Your task to perform on an android device: uninstall "Facebook" Image 0: 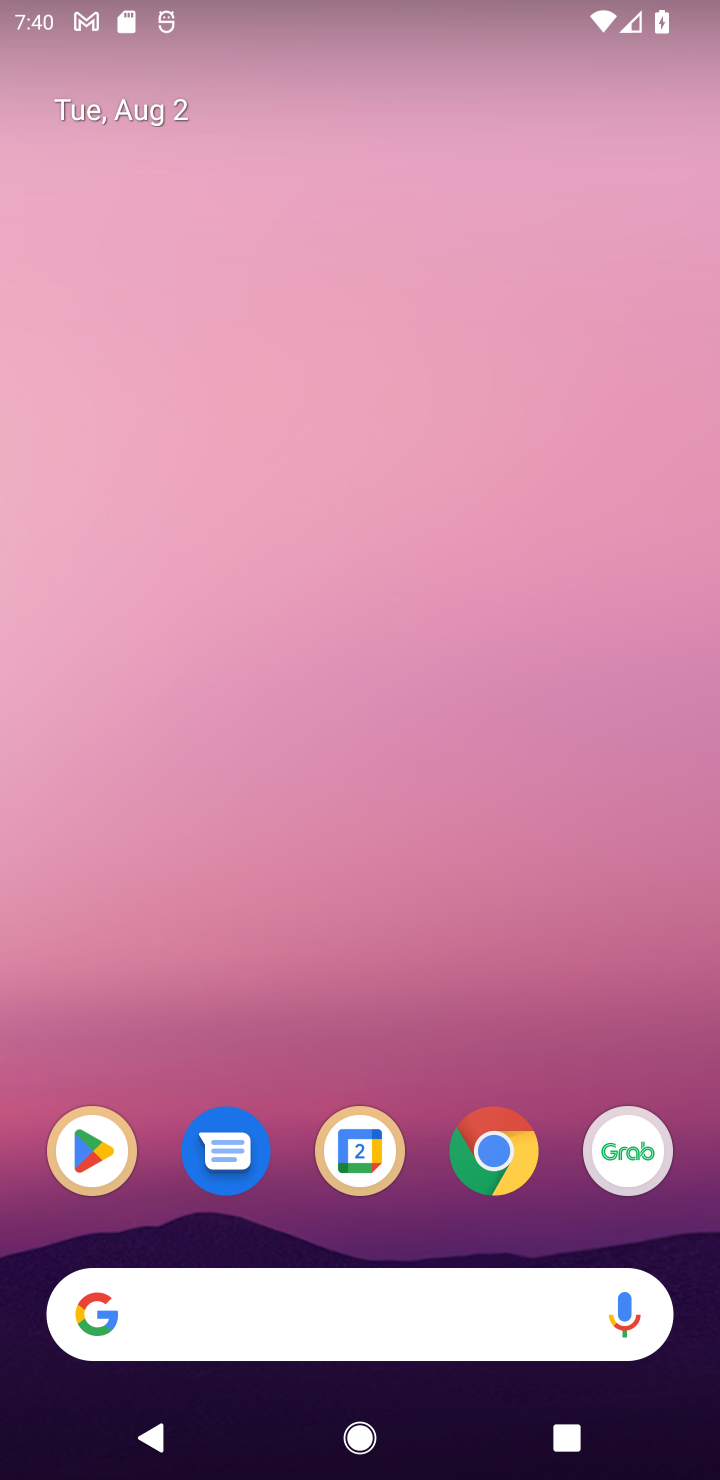
Step 0: drag from (353, 1249) to (147, 1)
Your task to perform on an android device: uninstall "Facebook" Image 1: 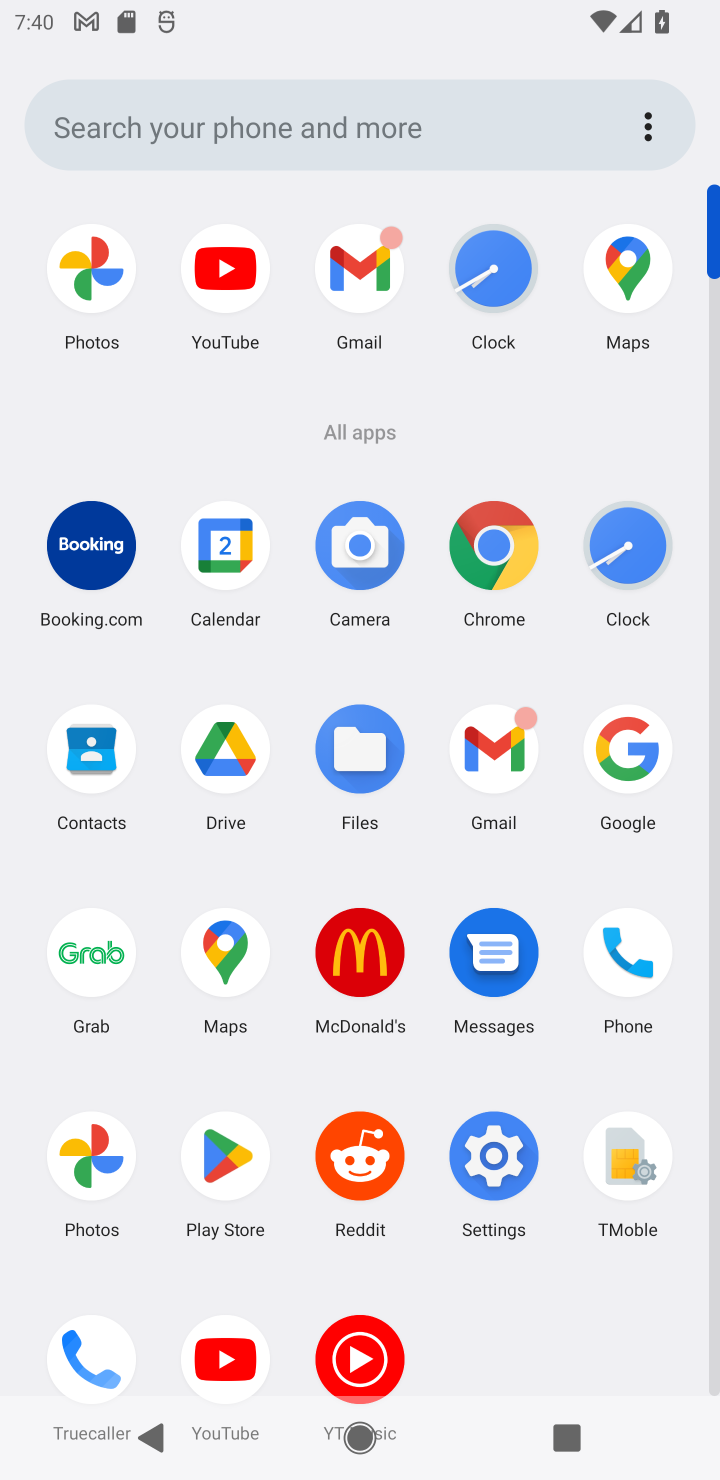
Step 1: click (223, 1167)
Your task to perform on an android device: uninstall "Facebook" Image 2: 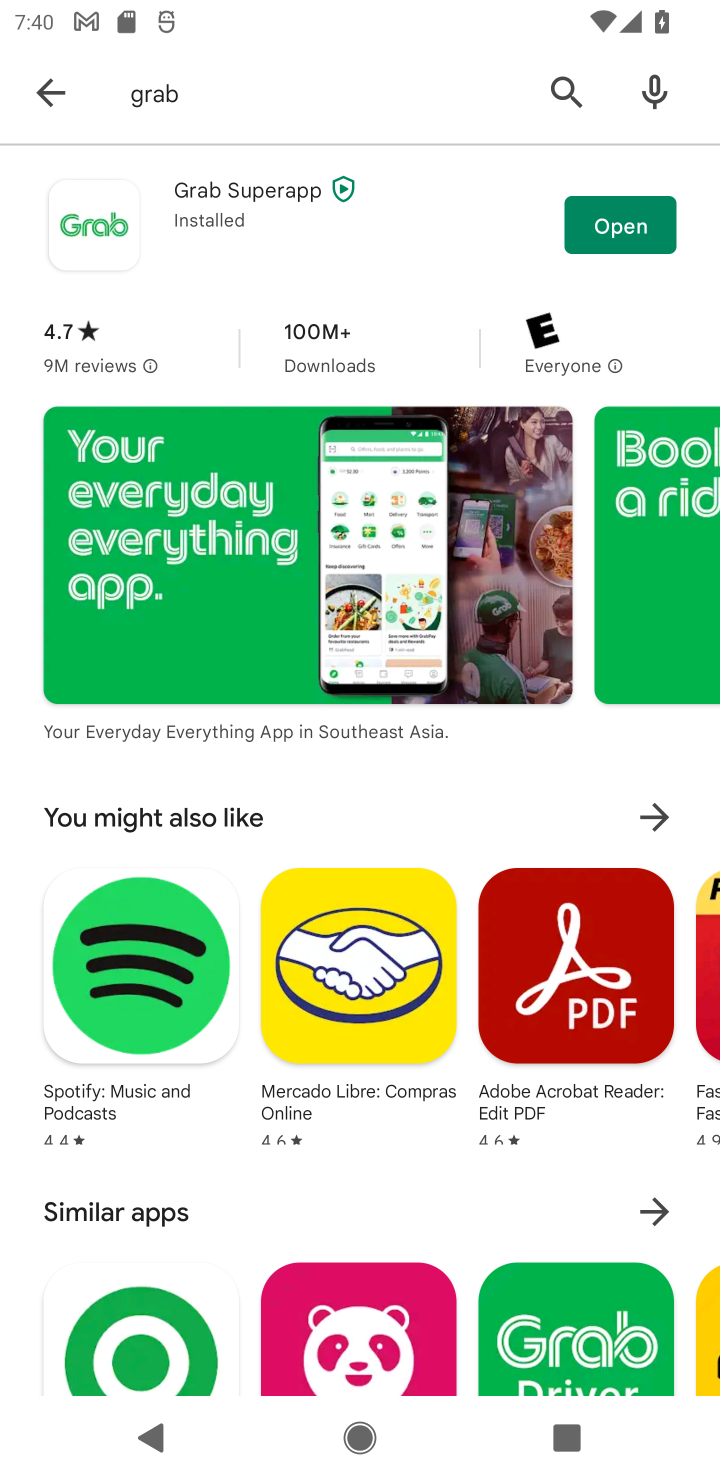
Step 2: click (42, 63)
Your task to perform on an android device: uninstall "Facebook" Image 3: 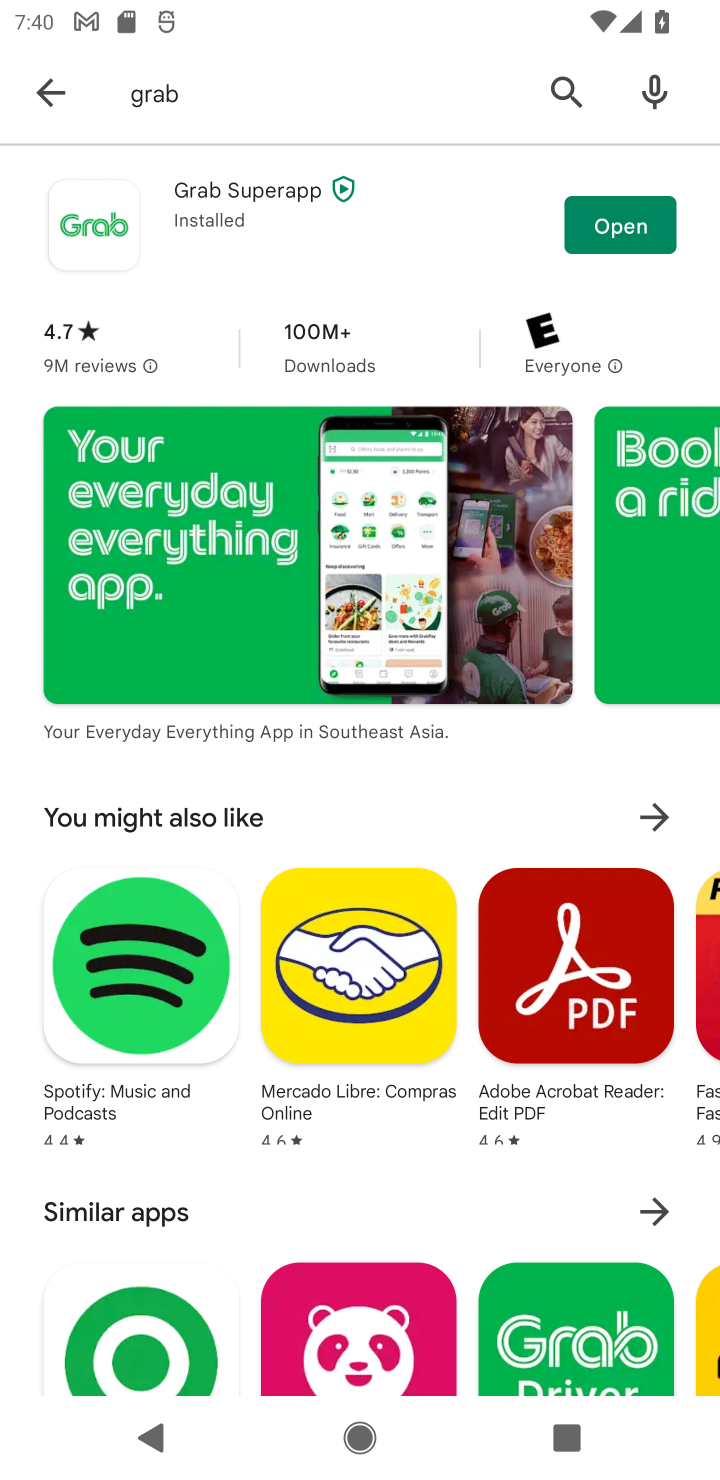
Step 3: click (54, 101)
Your task to perform on an android device: uninstall "Facebook" Image 4: 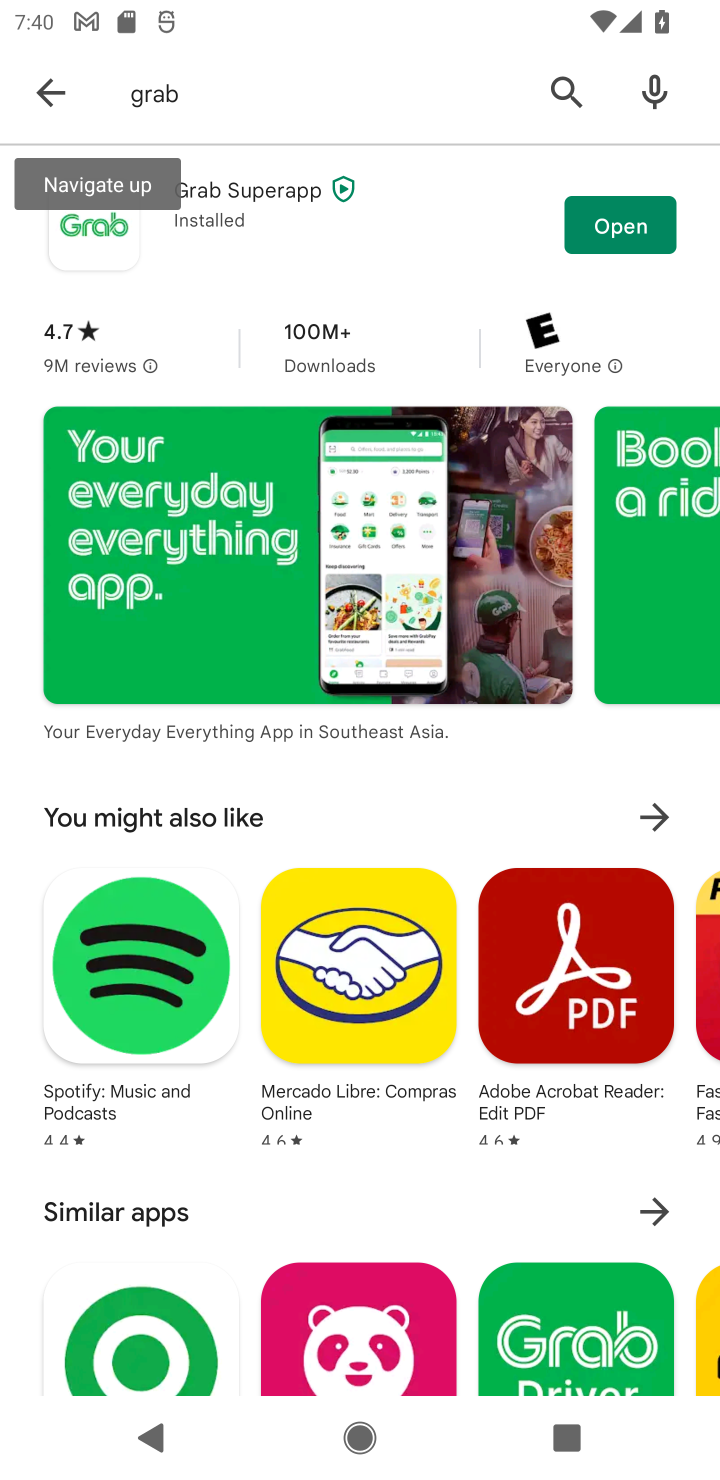
Step 4: click (54, 101)
Your task to perform on an android device: uninstall "Facebook" Image 5: 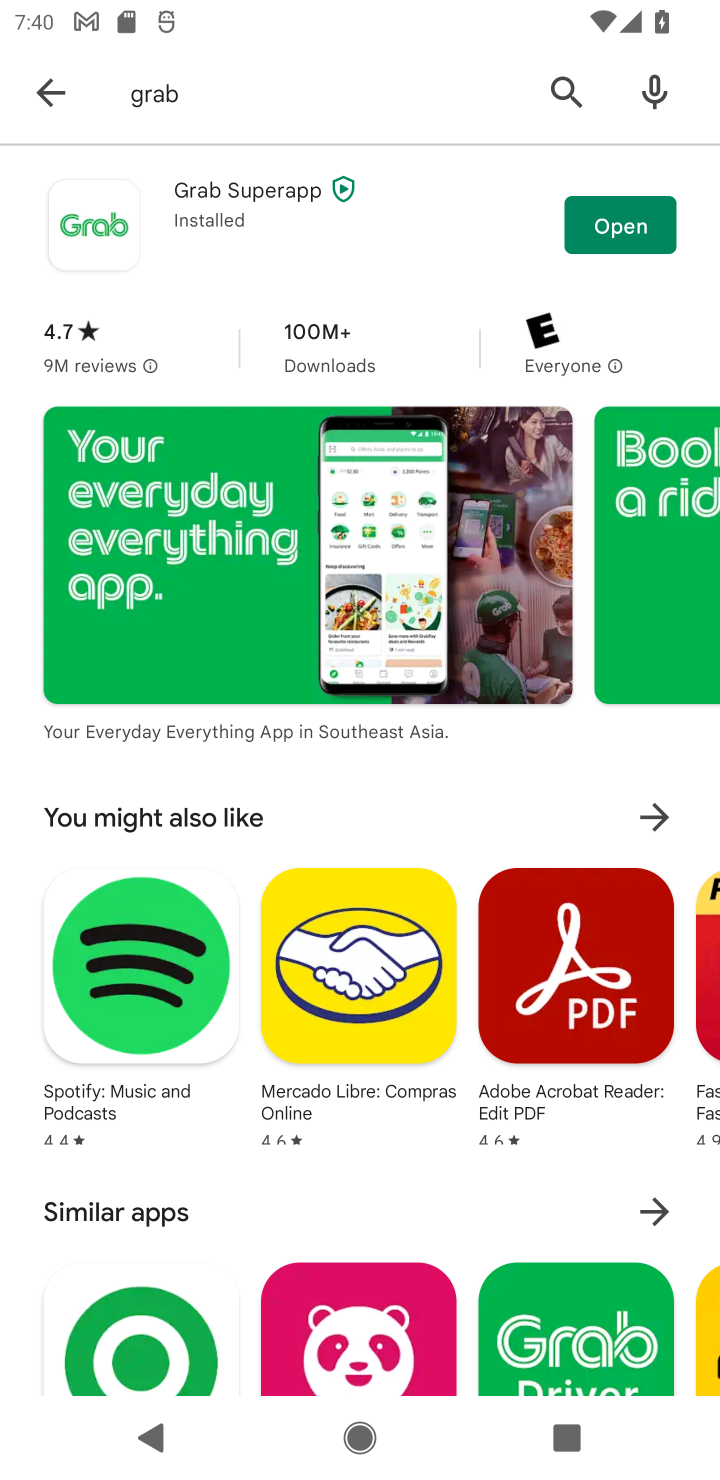
Step 5: click (42, 57)
Your task to perform on an android device: uninstall "Facebook" Image 6: 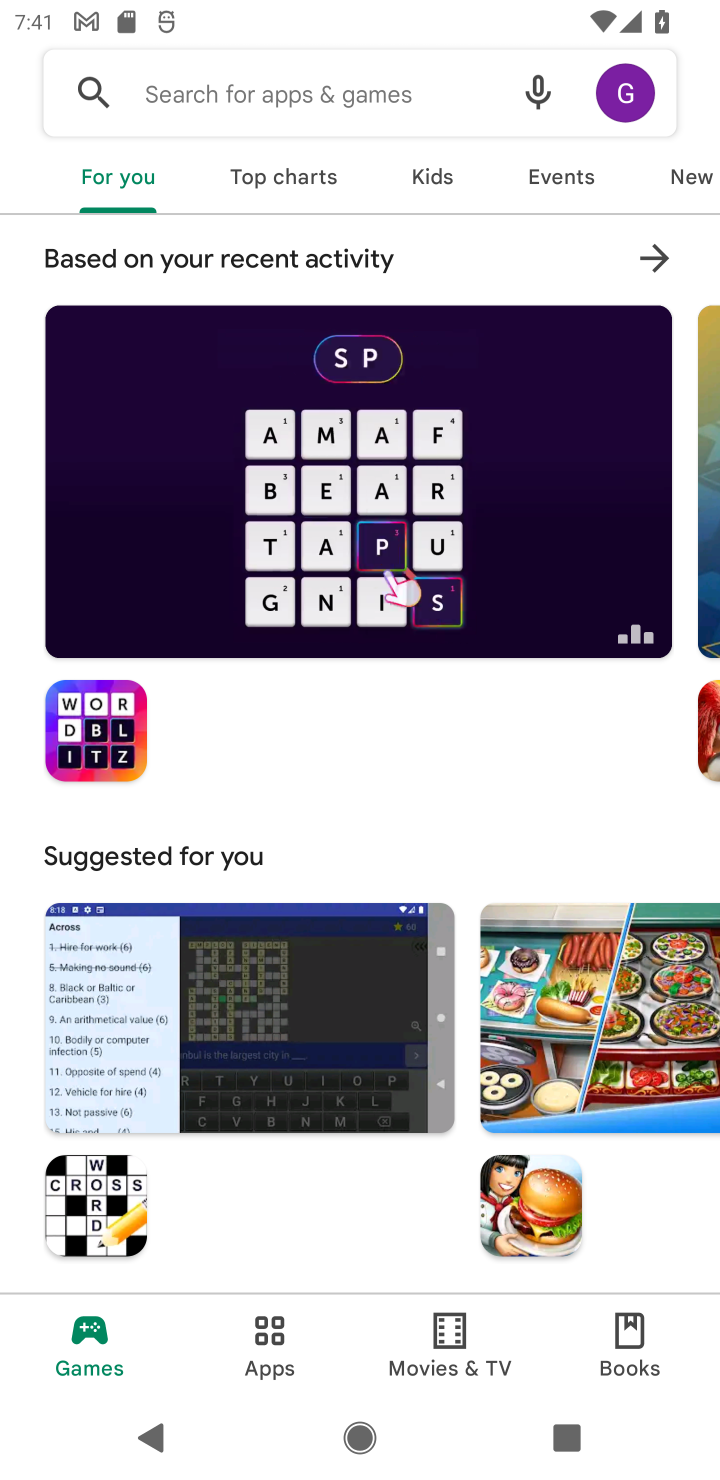
Step 6: click (301, 81)
Your task to perform on an android device: uninstall "Facebook" Image 7: 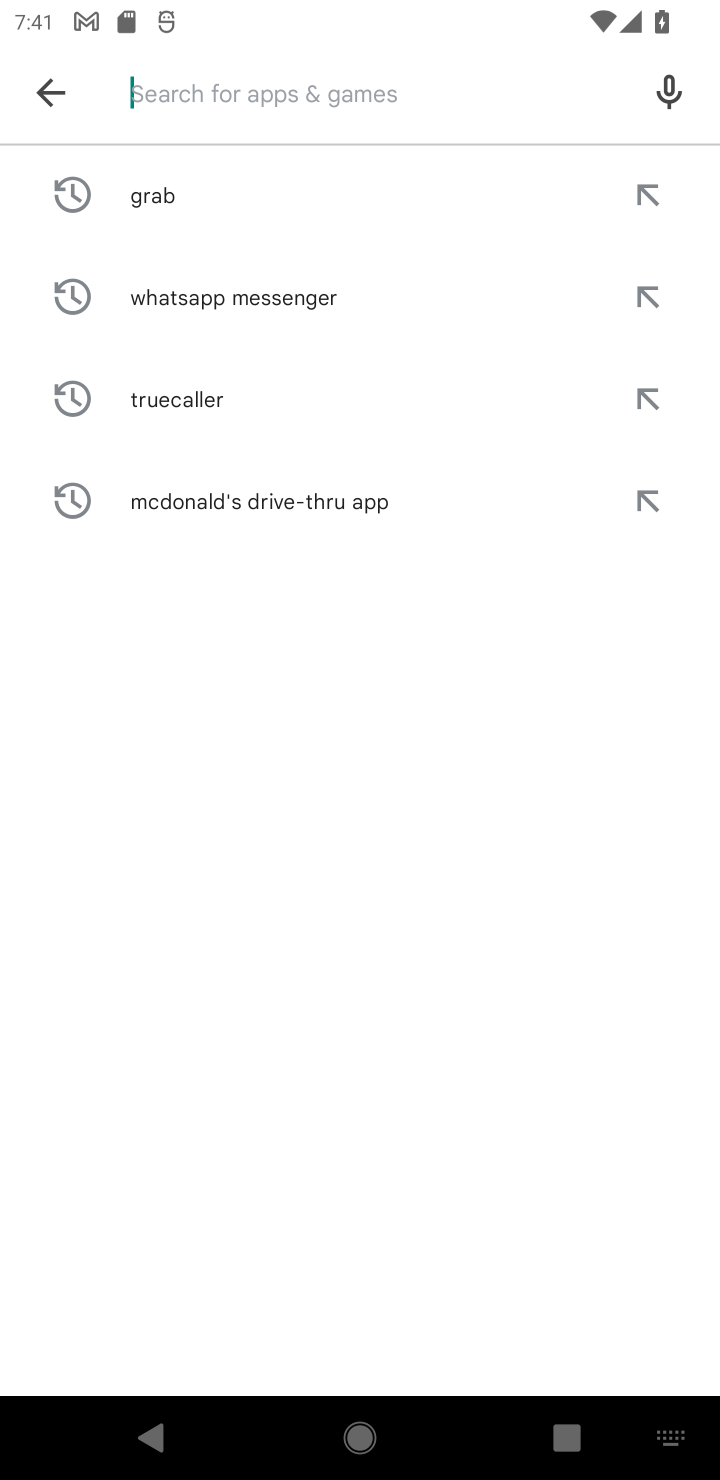
Step 7: type "Facebook"
Your task to perform on an android device: uninstall "Facebook" Image 8: 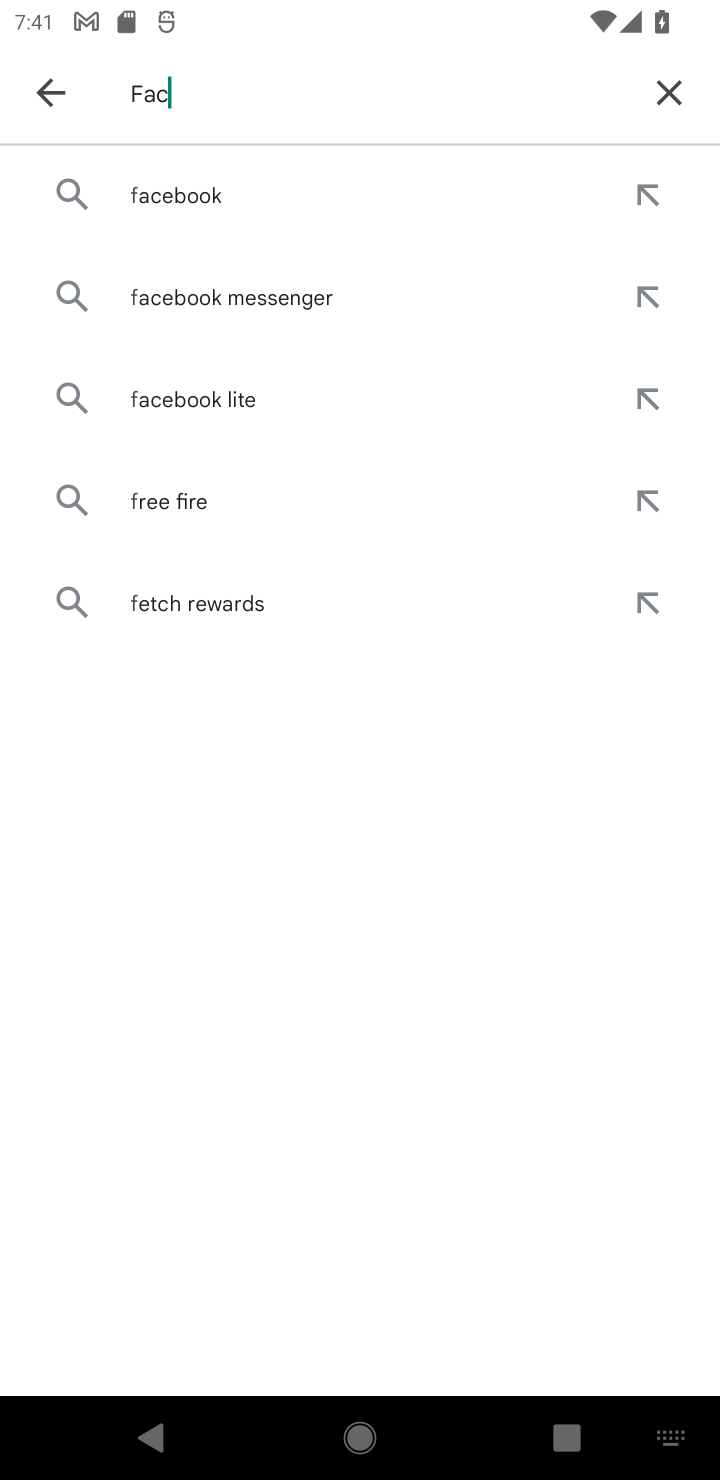
Step 8: type ""
Your task to perform on an android device: uninstall "Facebook" Image 9: 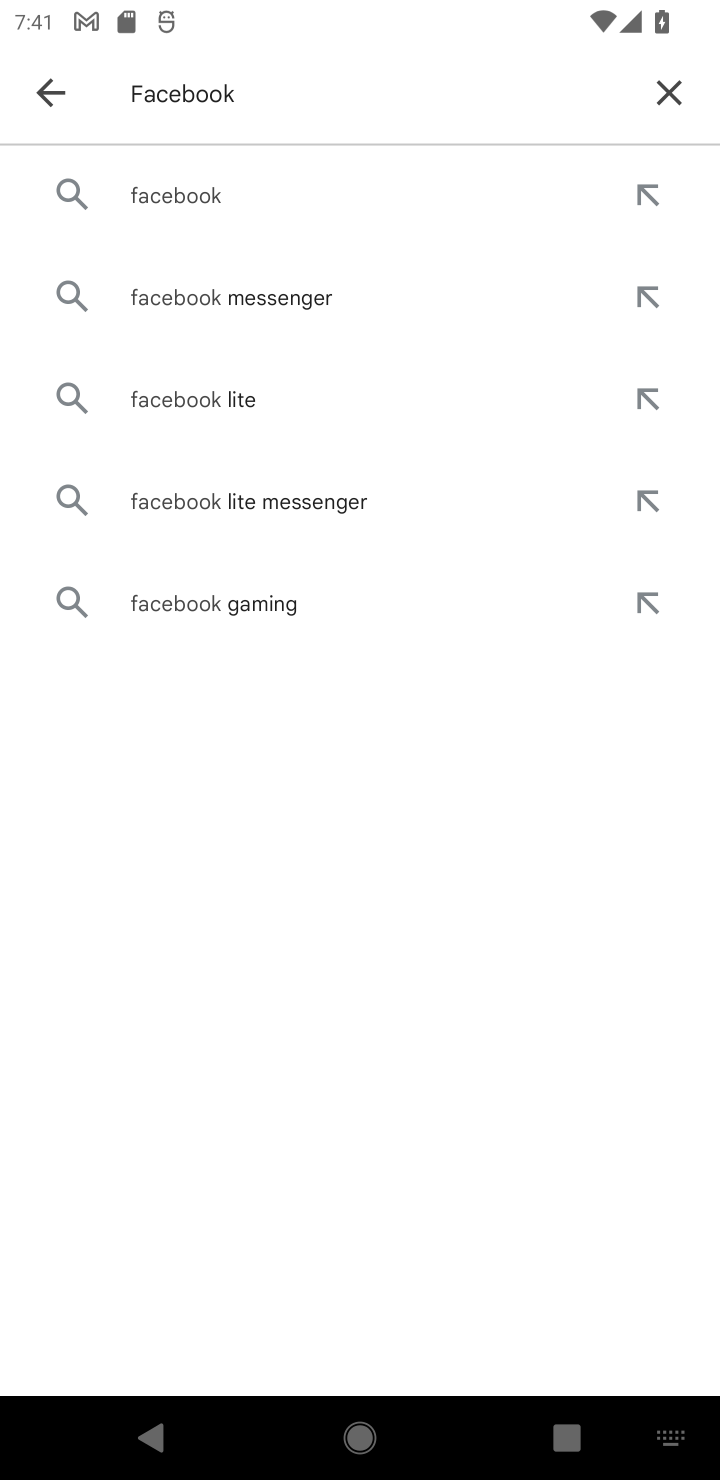
Step 9: click (240, 173)
Your task to perform on an android device: uninstall "Facebook" Image 10: 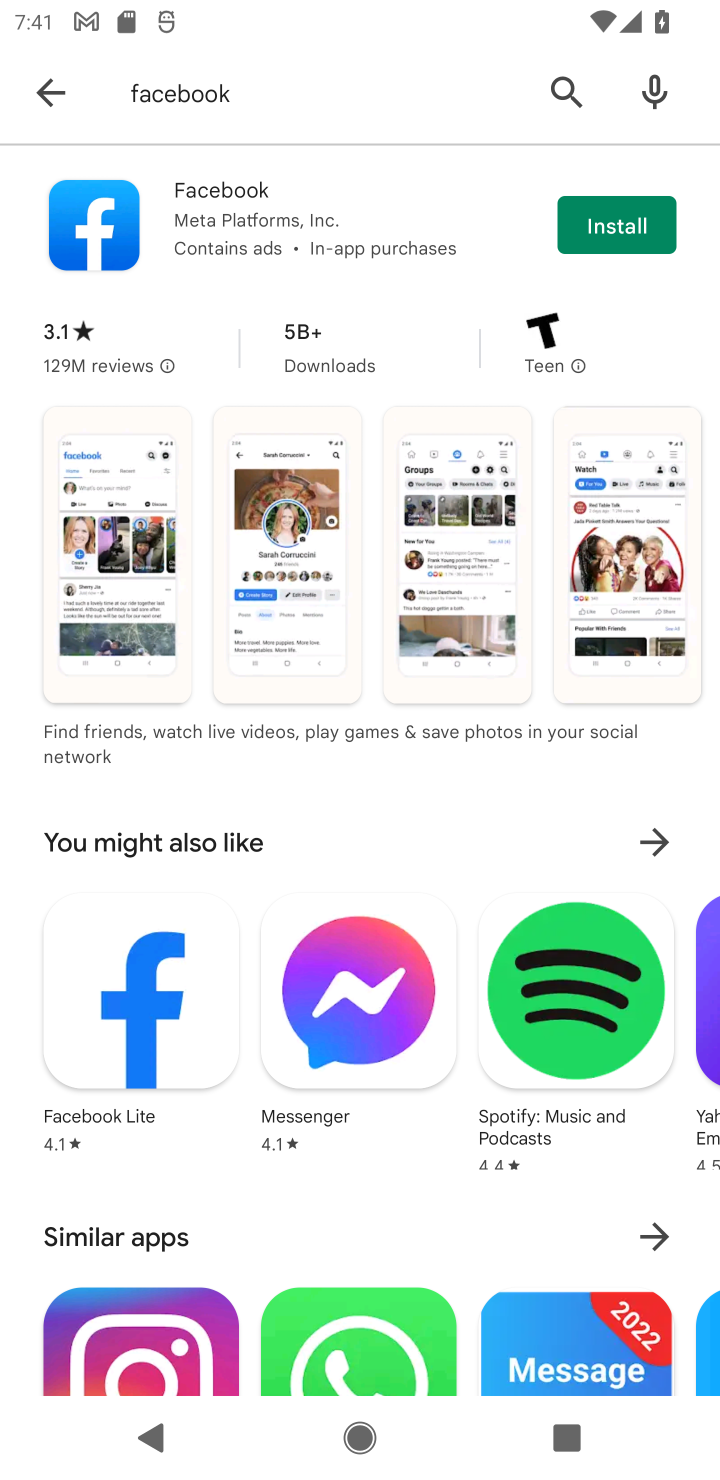
Step 10: click (56, 251)
Your task to perform on an android device: uninstall "Facebook" Image 11: 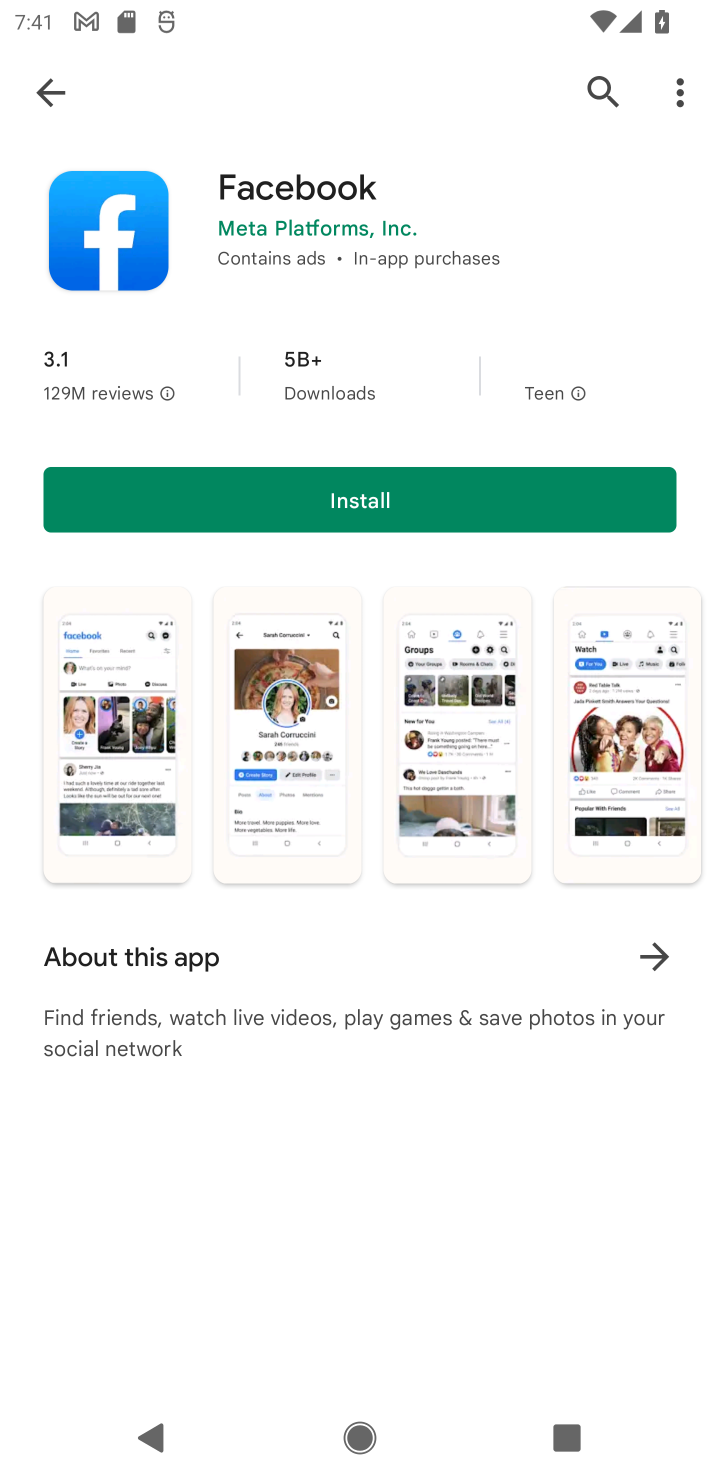
Step 11: task complete